Your task to perform on an android device: delete the emails in spam in the gmail app Image 0: 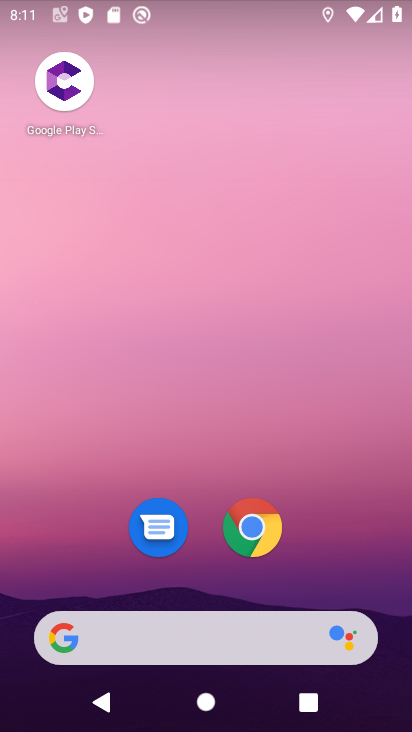
Step 0: drag from (305, 572) to (250, 91)
Your task to perform on an android device: delete the emails in spam in the gmail app Image 1: 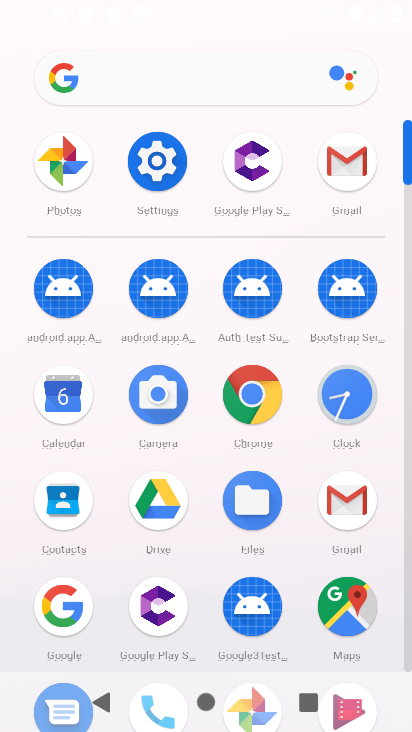
Step 1: click (344, 161)
Your task to perform on an android device: delete the emails in spam in the gmail app Image 2: 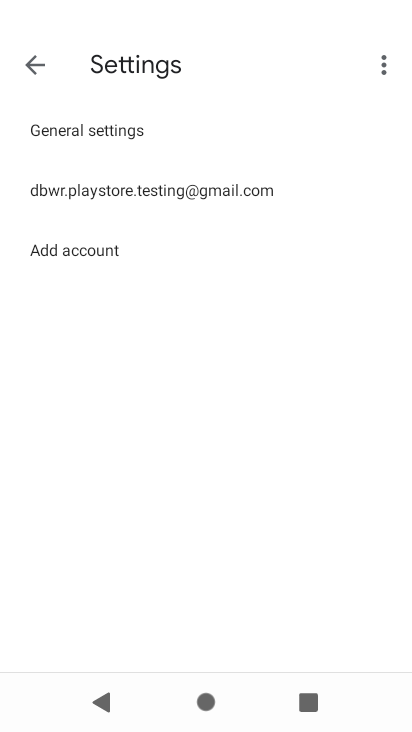
Step 2: press back button
Your task to perform on an android device: delete the emails in spam in the gmail app Image 3: 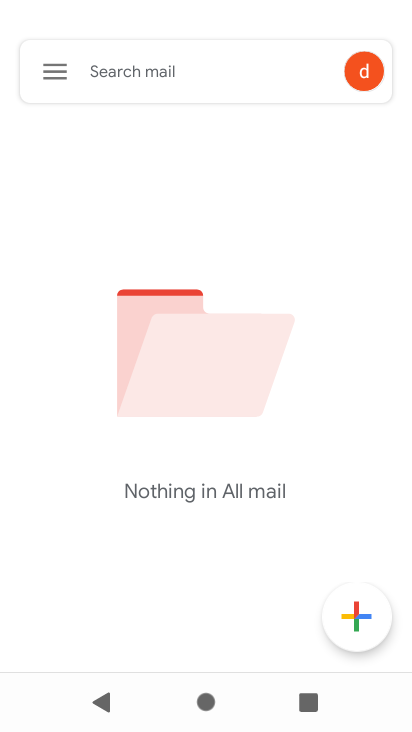
Step 3: click (53, 83)
Your task to perform on an android device: delete the emails in spam in the gmail app Image 4: 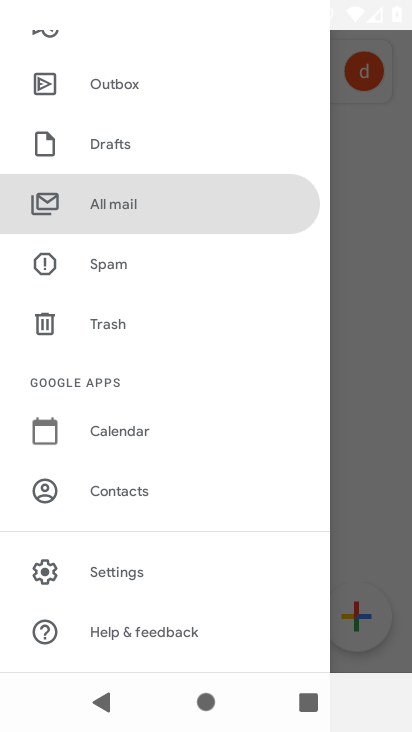
Step 4: click (114, 245)
Your task to perform on an android device: delete the emails in spam in the gmail app Image 5: 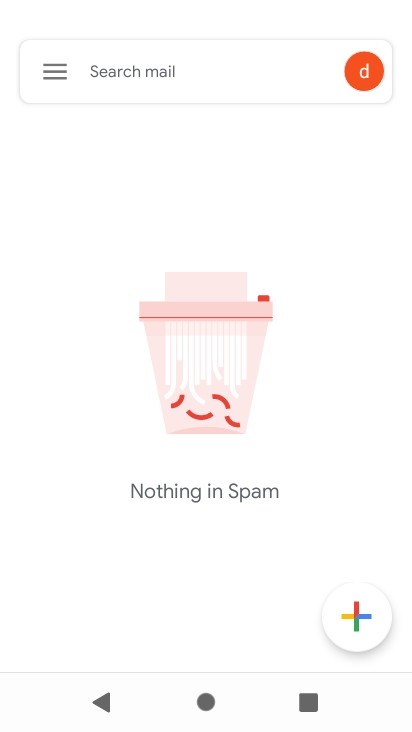
Step 5: task complete